Your task to perform on an android device: Play the last video I watched on Youtube Image 0: 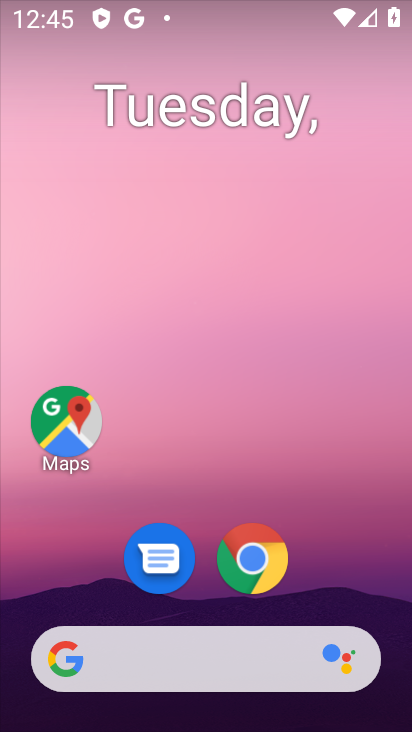
Step 0: drag from (372, 567) to (385, 209)
Your task to perform on an android device: Play the last video I watched on Youtube Image 1: 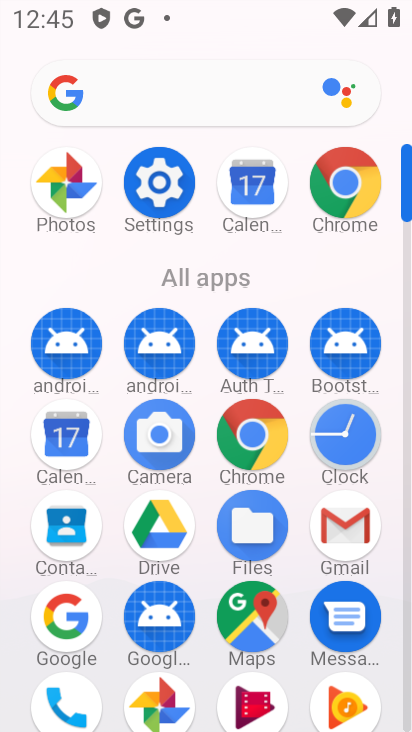
Step 1: drag from (203, 551) to (203, 312)
Your task to perform on an android device: Play the last video I watched on Youtube Image 2: 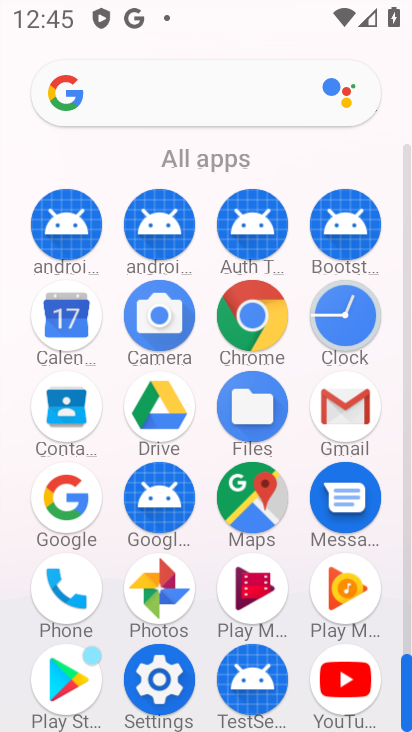
Step 2: click (353, 687)
Your task to perform on an android device: Play the last video I watched on Youtube Image 3: 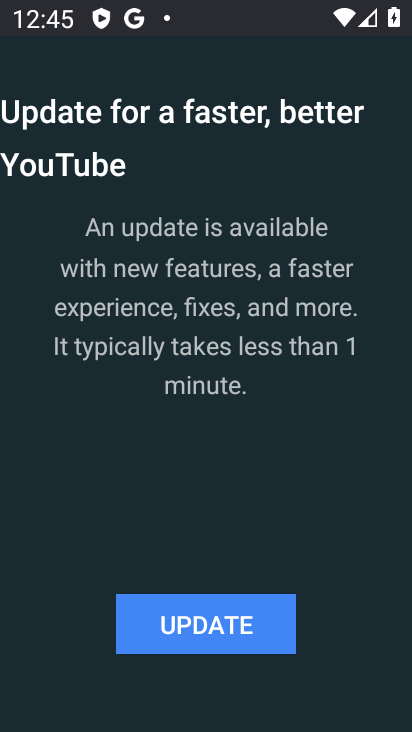
Step 3: click (198, 650)
Your task to perform on an android device: Play the last video I watched on Youtube Image 4: 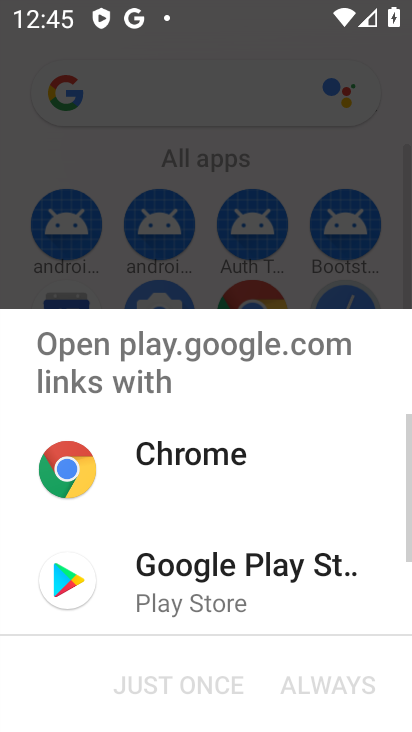
Step 4: click (219, 588)
Your task to perform on an android device: Play the last video I watched on Youtube Image 5: 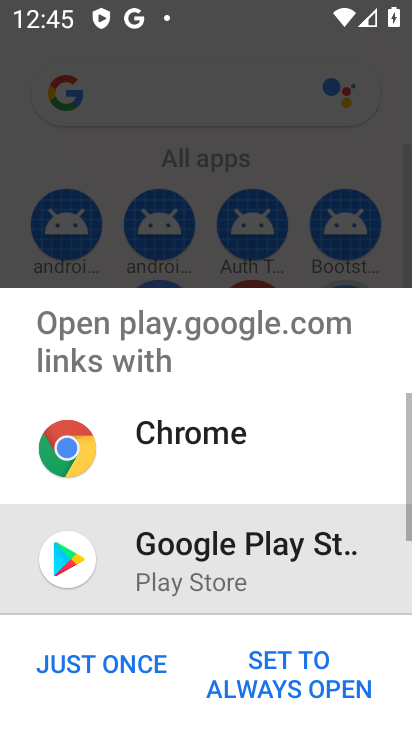
Step 5: click (136, 656)
Your task to perform on an android device: Play the last video I watched on Youtube Image 6: 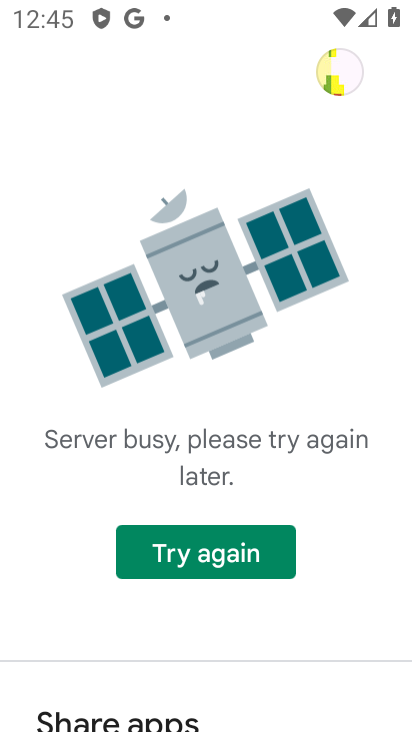
Step 6: click (221, 553)
Your task to perform on an android device: Play the last video I watched on Youtube Image 7: 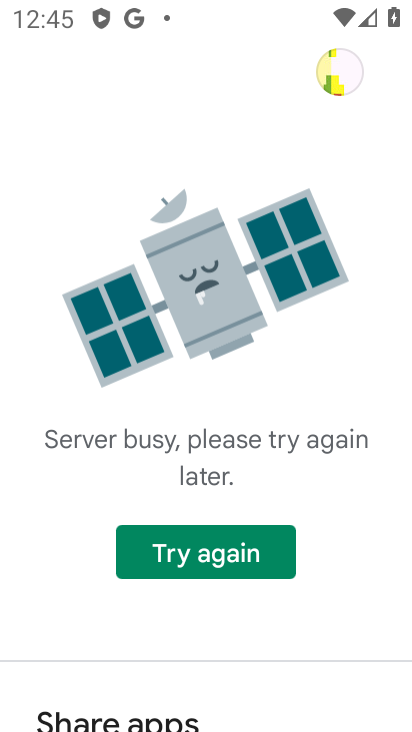
Step 7: click (243, 560)
Your task to perform on an android device: Play the last video I watched on Youtube Image 8: 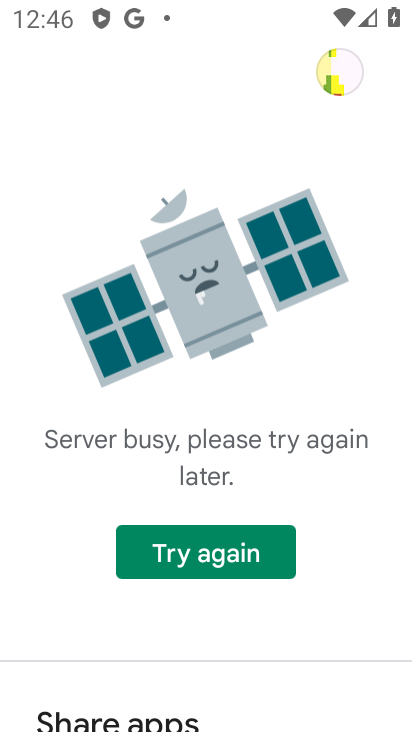
Step 8: click (242, 560)
Your task to perform on an android device: Play the last video I watched on Youtube Image 9: 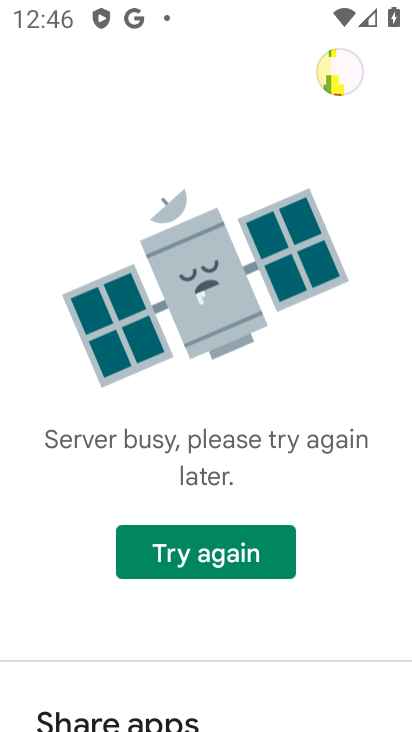
Step 9: click (242, 560)
Your task to perform on an android device: Play the last video I watched on Youtube Image 10: 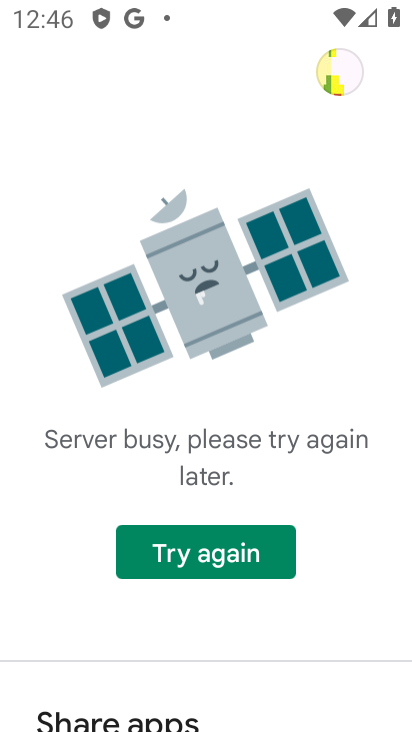
Step 10: task complete